Your task to perform on an android device: toggle javascript in the chrome app Image 0: 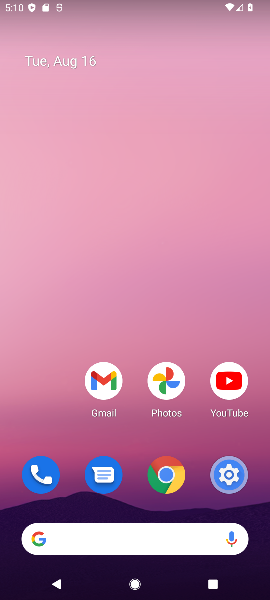
Step 0: drag from (196, 489) to (120, 35)
Your task to perform on an android device: toggle javascript in the chrome app Image 1: 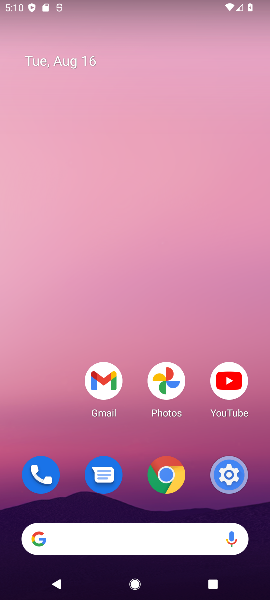
Step 1: drag from (202, 496) to (130, 14)
Your task to perform on an android device: toggle javascript in the chrome app Image 2: 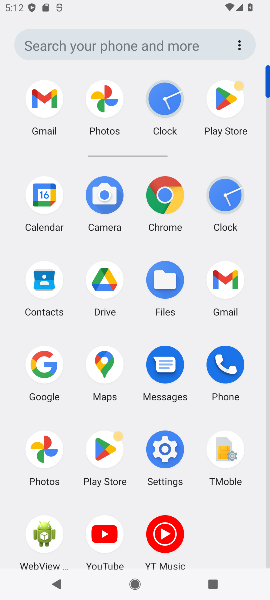
Step 2: click (160, 206)
Your task to perform on an android device: toggle javascript in the chrome app Image 3: 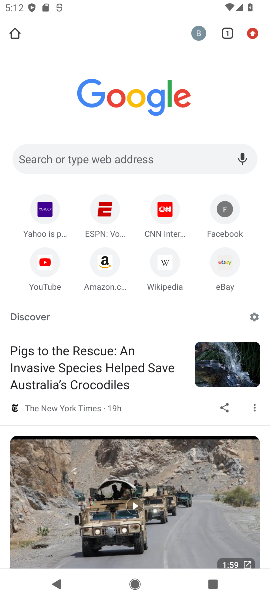
Step 3: click (253, 34)
Your task to perform on an android device: toggle javascript in the chrome app Image 4: 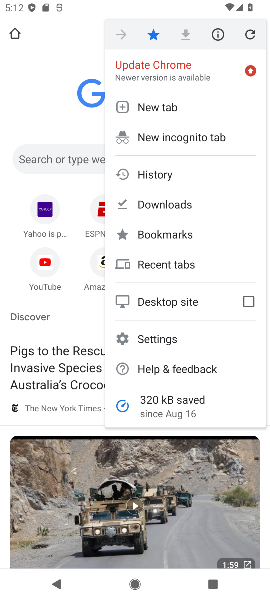
Step 4: click (153, 340)
Your task to perform on an android device: toggle javascript in the chrome app Image 5: 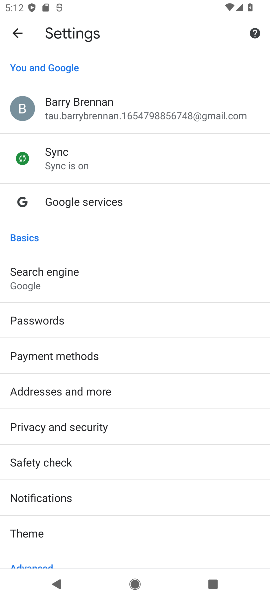
Step 5: drag from (102, 500) to (78, 148)
Your task to perform on an android device: toggle javascript in the chrome app Image 6: 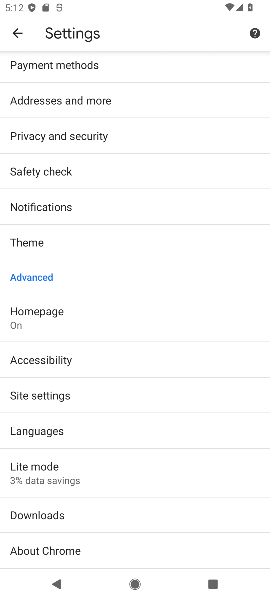
Step 6: click (55, 397)
Your task to perform on an android device: toggle javascript in the chrome app Image 7: 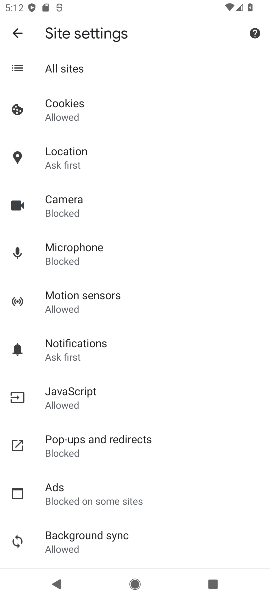
Step 7: click (82, 389)
Your task to perform on an android device: toggle javascript in the chrome app Image 8: 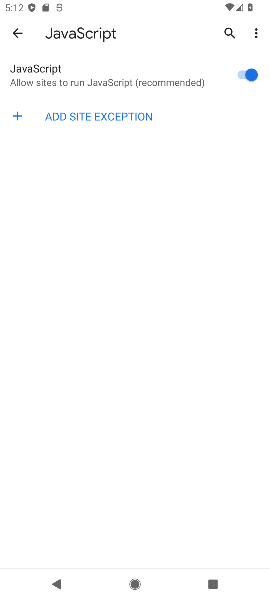
Step 8: click (244, 70)
Your task to perform on an android device: toggle javascript in the chrome app Image 9: 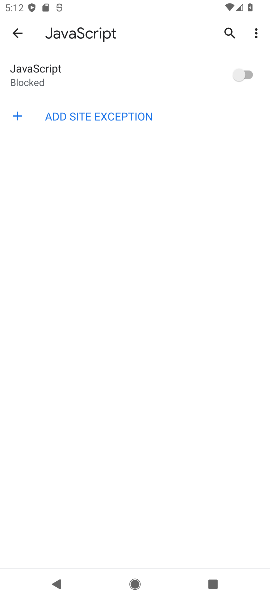
Step 9: task complete